Your task to perform on an android device: delete location history Image 0: 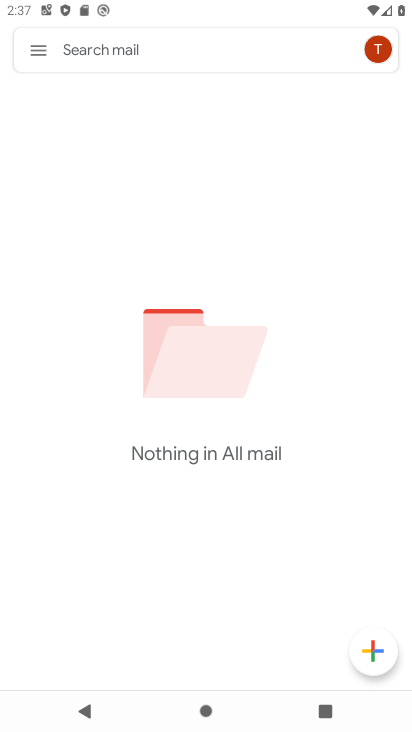
Step 0: press home button
Your task to perform on an android device: delete location history Image 1: 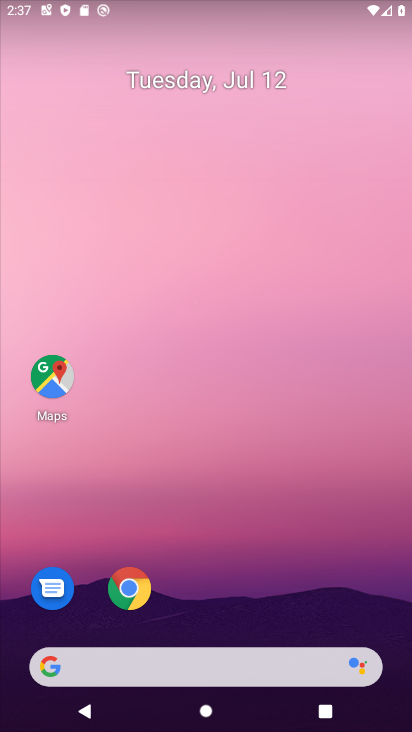
Step 1: click (55, 392)
Your task to perform on an android device: delete location history Image 2: 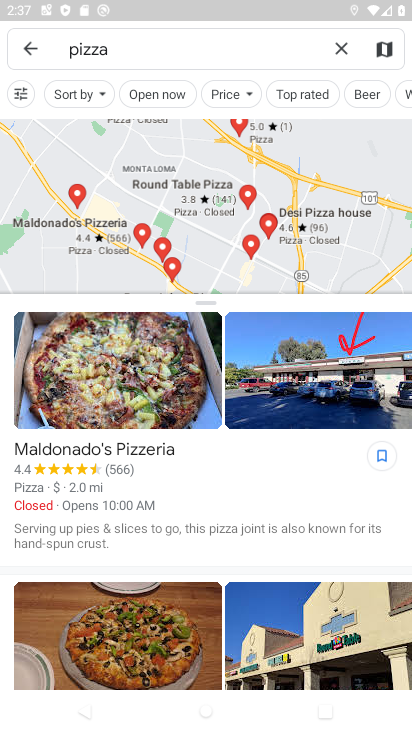
Step 2: click (27, 55)
Your task to perform on an android device: delete location history Image 3: 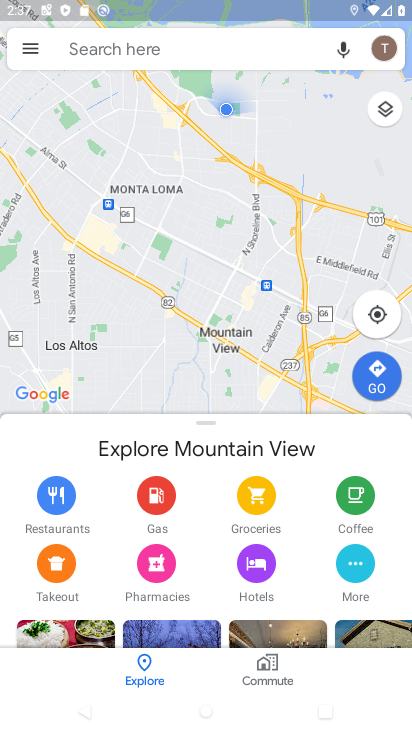
Step 3: click (29, 48)
Your task to perform on an android device: delete location history Image 4: 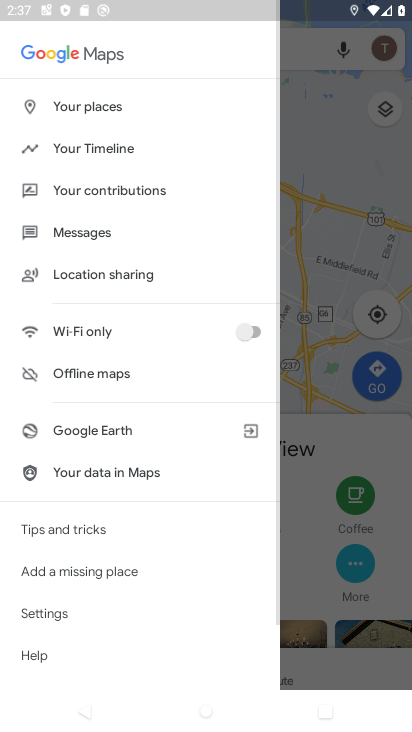
Step 4: click (118, 147)
Your task to perform on an android device: delete location history Image 5: 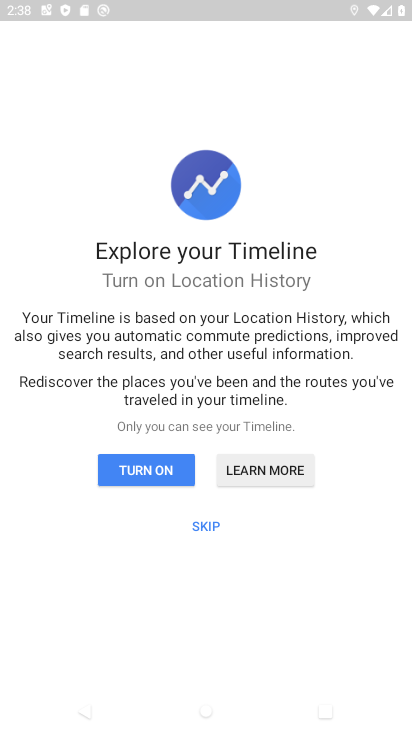
Step 5: click (135, 467)
Your task to perform on an android device: delete location history Image 6: 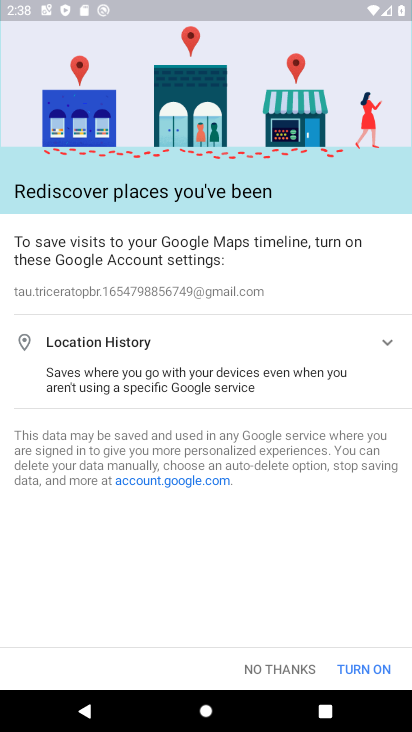
Step 6: click (354, 666)
Your task to perform on an android device: delete location history Image 7: 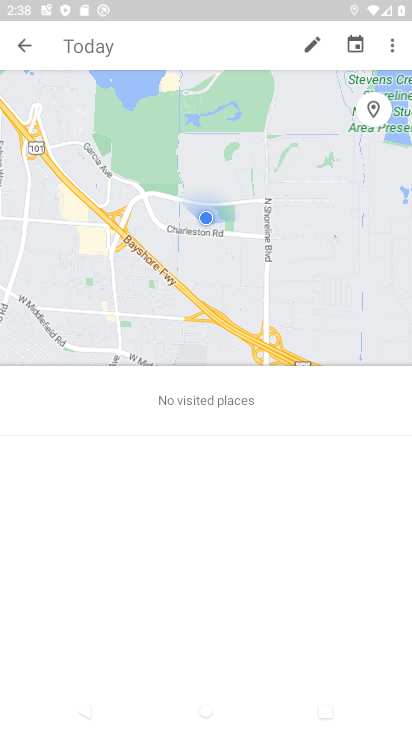
Step 7: click (396, 49)
Your task to perform on an android device: delete location history Image 8: 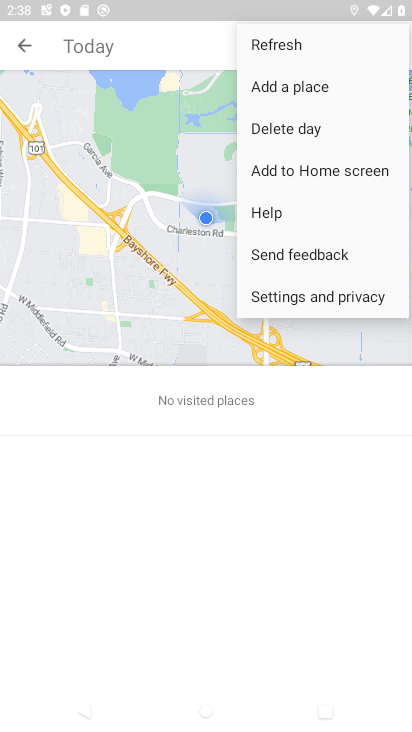
Step 8: click (326, 292)
Your task to perform on an android device: delete location history Image 9: 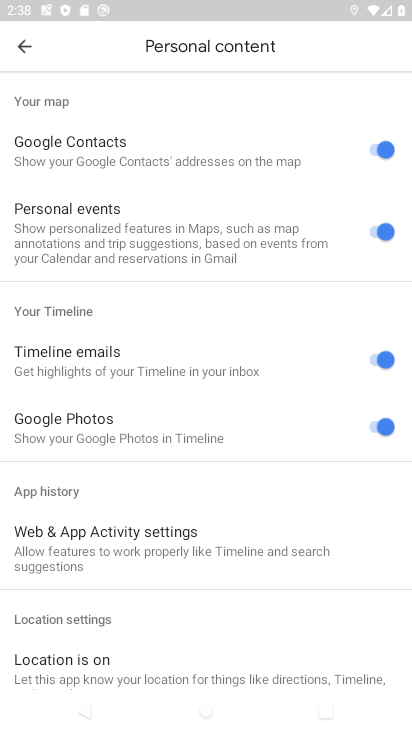
Step 9: drag from (188, 627) to (165, 74)
Your task to perform on an android device: delete location history Image 10: 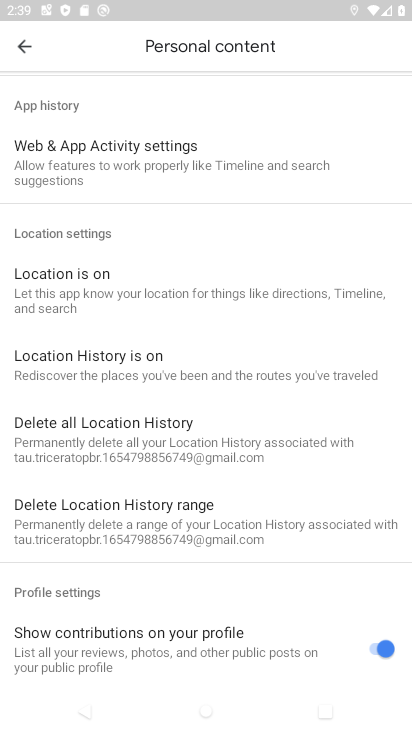
Step 10: click (185, 441)
Your task to perform on an android device: delete location history Image 11: 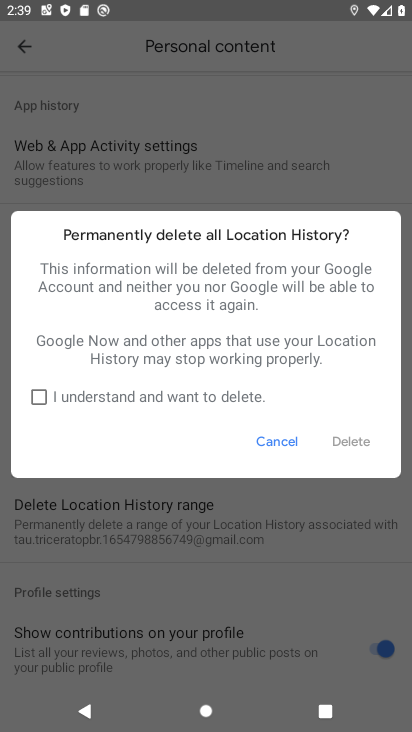
Step 11: click (134, 401)
Your task to perform on an android device: delete location history Image 12: 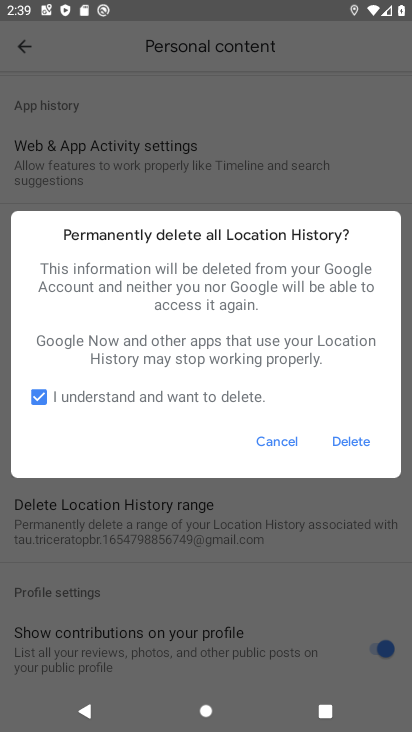
Step 12: click (351, 446)
Your task to perform on an android device: delete location history Image 13: 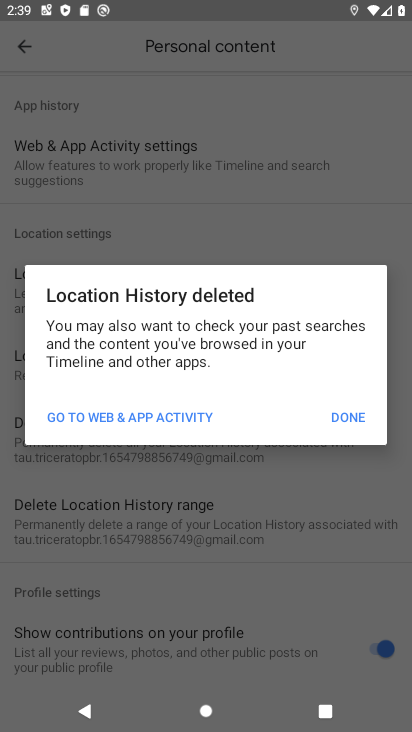
Step 13: click (351, 424)
Your task to perform on an android device: delete location history Image 14: 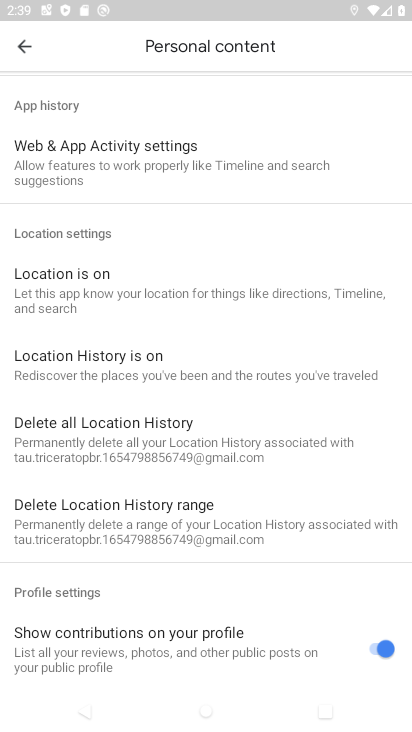
Step 14: task complete